Your task to perform on an android device: manage bookmarks in the chrome app Image 0: 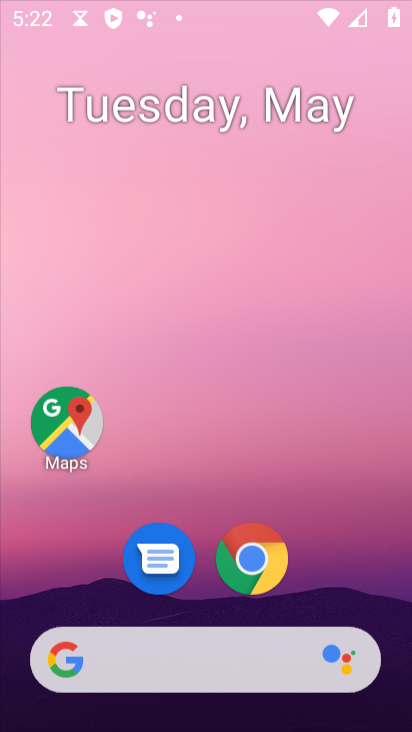
Step 0: click (165, 31)
Your task to perform on an android device: manage bookmarks in the chrome app Image 1: 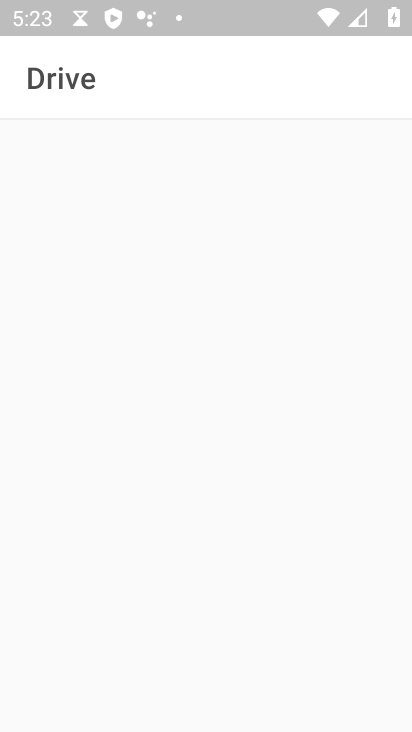
Step 1: press back button
Your task to perform on an android device: manage bookmarks in the chrome app Image 2: 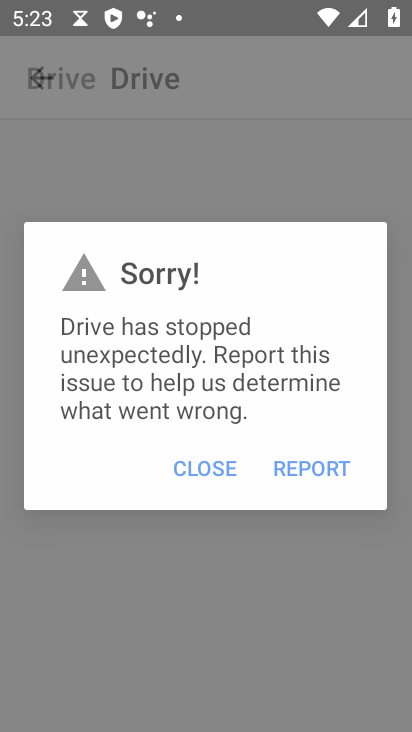
Step 2: press home button
Your task to perform on an android device: manage bookmarks in the chrome app Image 3: 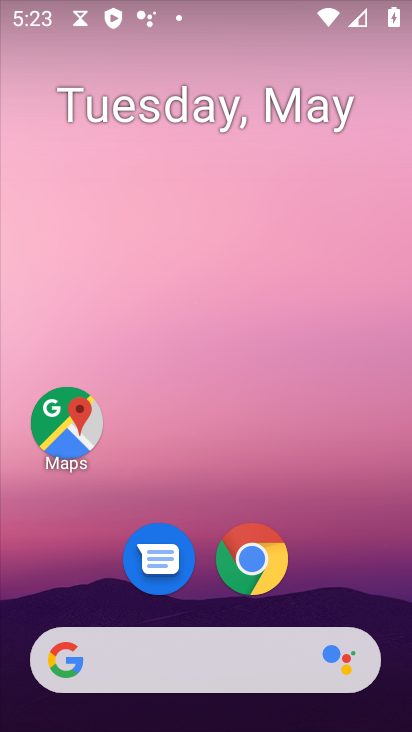
Step 3: drag from (379, 596) to (144, 161)
Your task to perform on an android device: manage bookmarks in the chrome app Image 4: 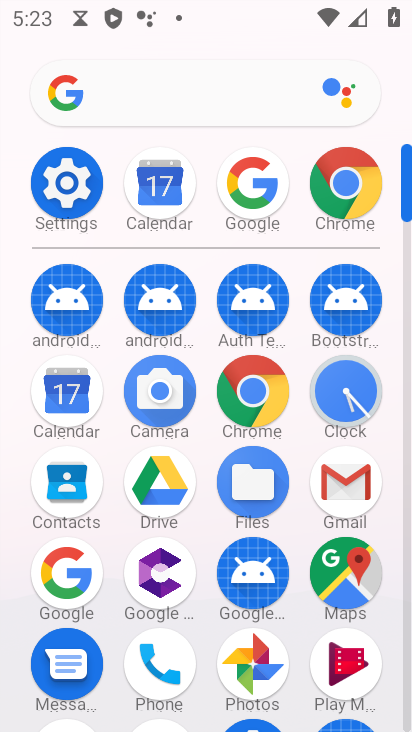
Step 4: click (332, 202)
Your task to perform on an android device: manage bookmarks in the chrome app Image 5: 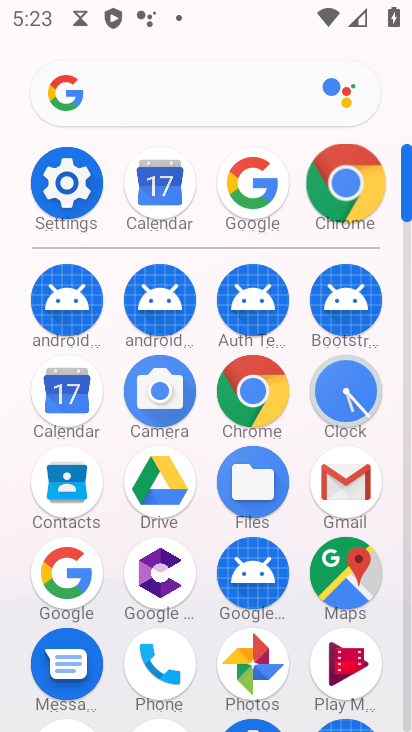
Step 5: click (351, 193)
Your task to perform on an android device: manage bookmarks in the chrome app Image 6: 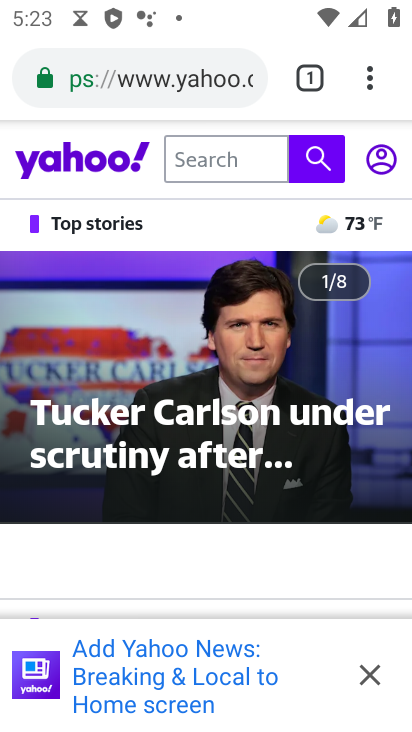
Step 6: click (353, 193)
Your task to perform on an android device: manage bookmarks in the chrome app Image 7: 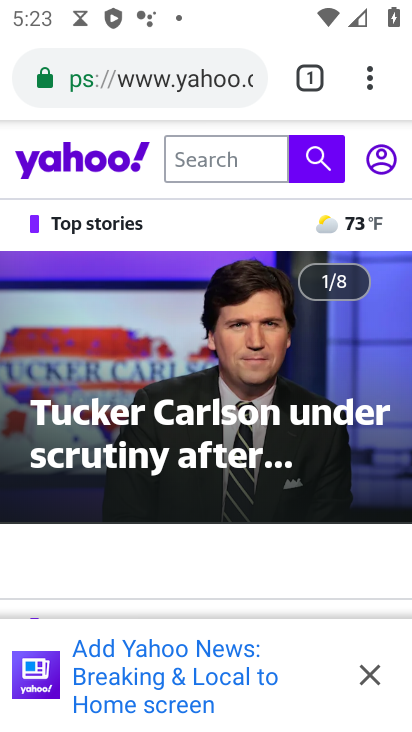
Step 7: click (353, 193)
Your task to perform on an android device: manage bookmarks in the chrome app Image 8: 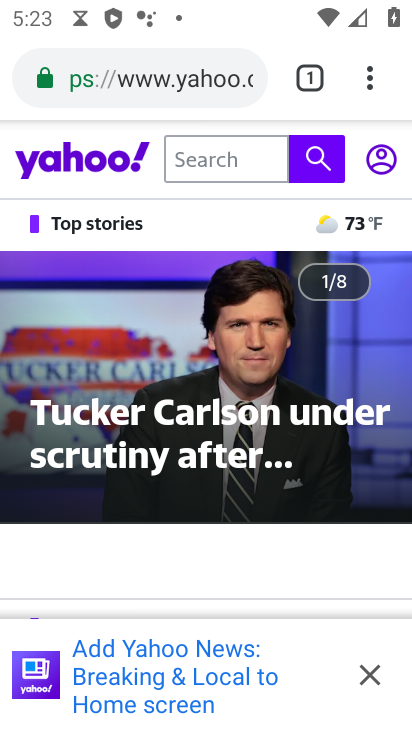
Step 8: click (360, 80)
Your task to perform on an android device: manage bookmarks in the chrome app Image 9: 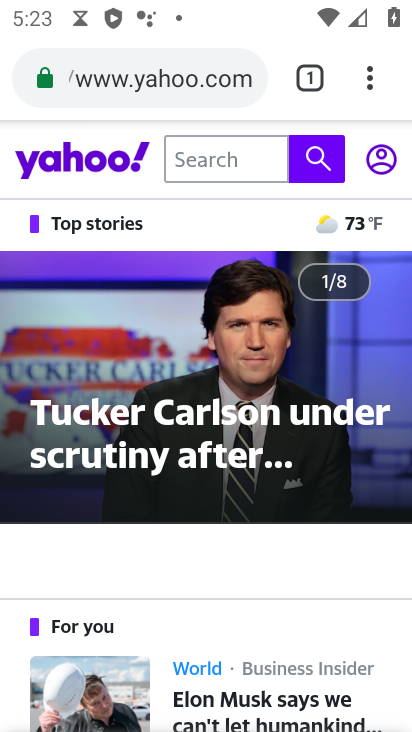
Step 9: drag from (369, 71) to (82, 280)
Your task to perform on an android device: manage bookmarks in the chrome app Image 10: 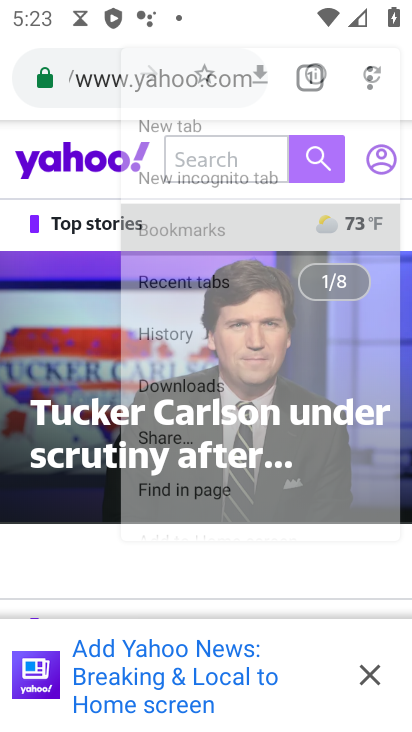
Step 10: click (85, 285)
Your task to perform on an android device: manage bookmarks in the chrome app Image 11: 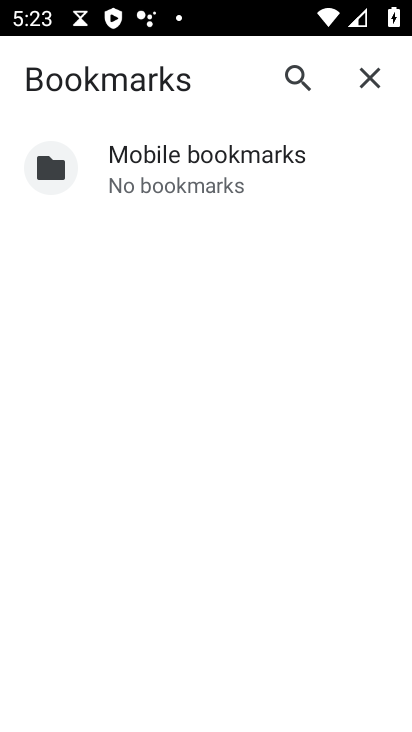
Step 11: click (363, 70)
Your task to perform on an android device: manage bookmarks in the chrome app Image 12: 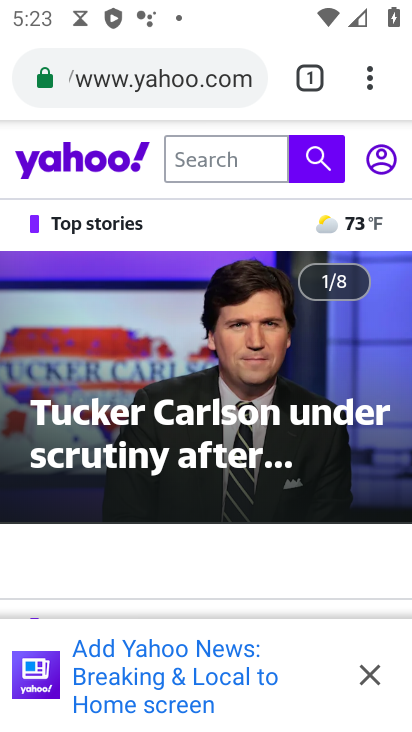
Step 12: drag from (374, 82) to (156, 294)
Your task to perform on an android device: manage bookmarks in the chrome app Image 13: 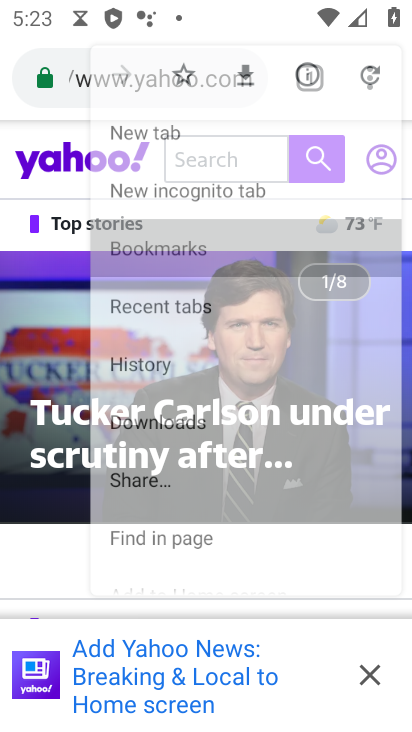
Step 13: click (156, 294)
Your task to perform on an android device: manage bookmarks in the chrome app Image 14: 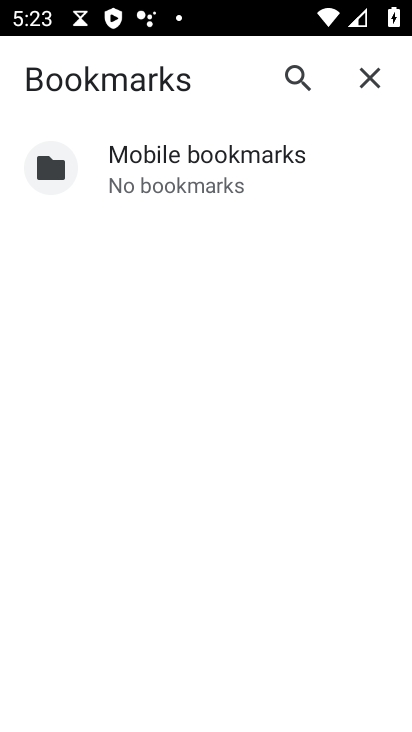
Step 14: click (378, 80)
Your task to perform on an android device: manage bookmarks in the chrome app Image 15: 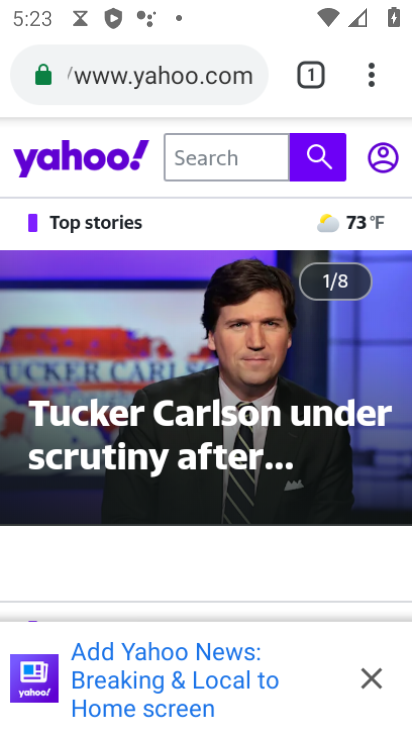
Step 15: task complete